Your task to perform on an android device: Go to sound settings Image 0: 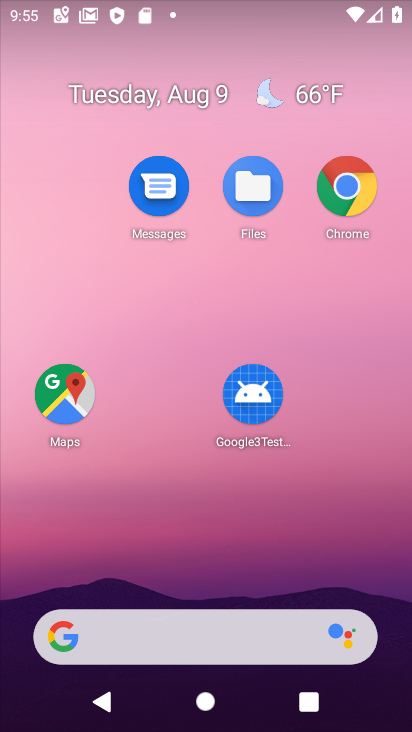
Step 0: drag from (182, 580) to (305, 44)
Your task to perform on an android device: Go to sound settings Image 1: 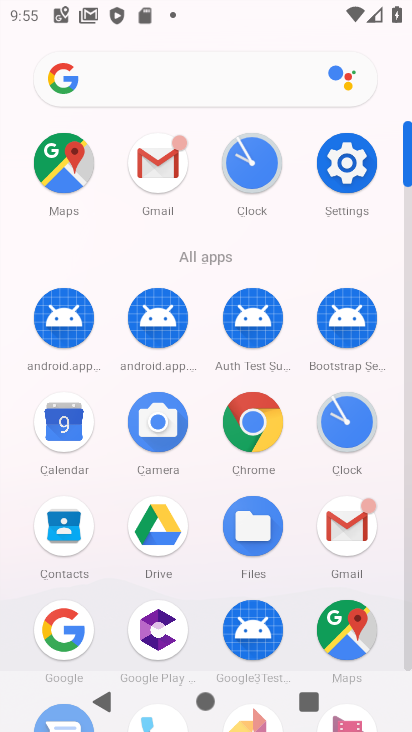
Step 1: click (347, 157)
Your task to perform on an android device: Go to sound settings Image 2: 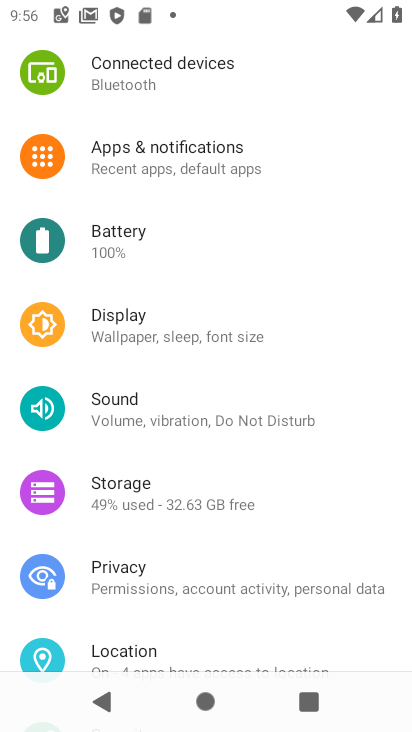
Step 2: click (201, 409)
Your task to perform on an android device: Go to sound settings Image 3: 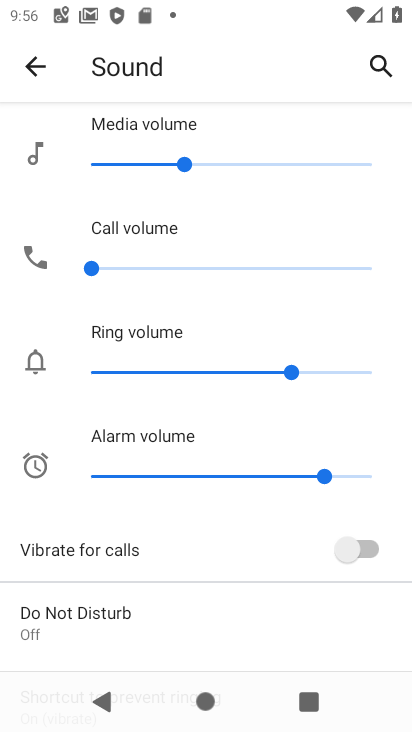
Step 3: task complete